Your task to perform on an android device: Open network settings Image 0: 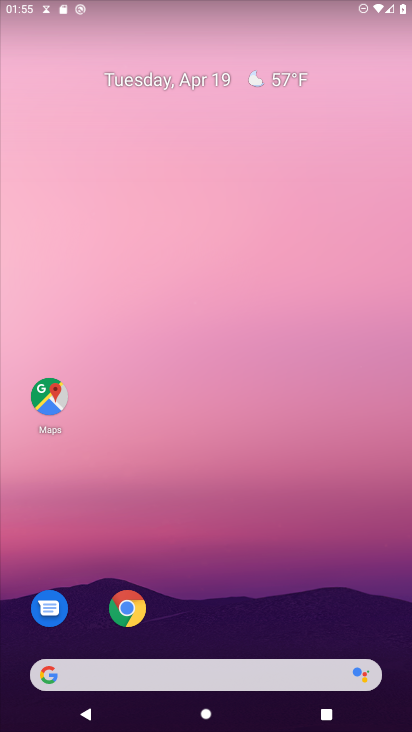
Step 0: drag from (217, 595) to (186, 65)
Your task to perform on an android device: Open network settings Image 1: 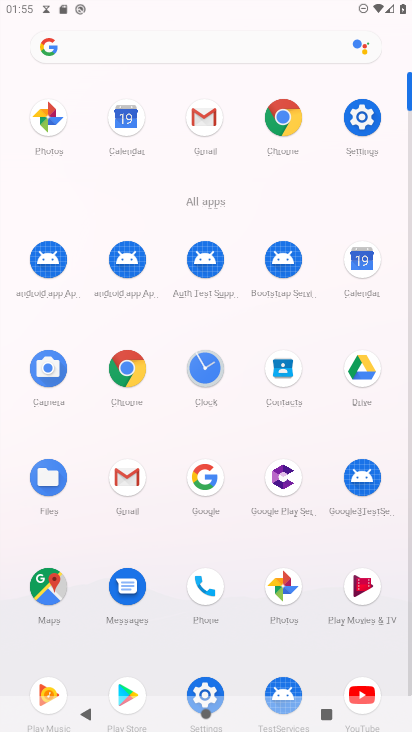
Step 1: click (360, 123)
Your task to perform on an android device: Open network settings Image 2: 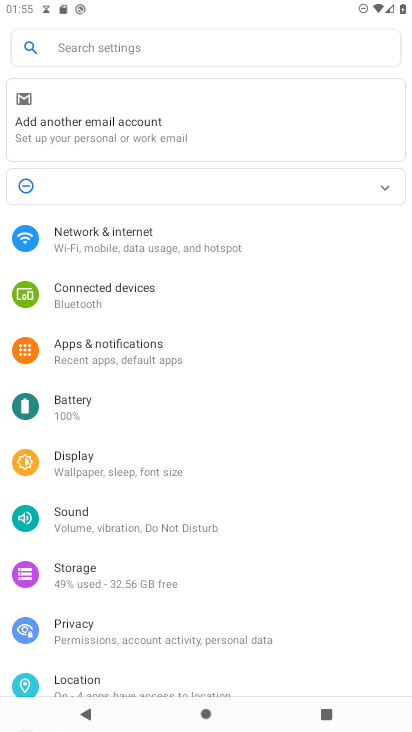
Step 2: click (118, 244)
Your task to perform on an android device: Open network settings Image 3: 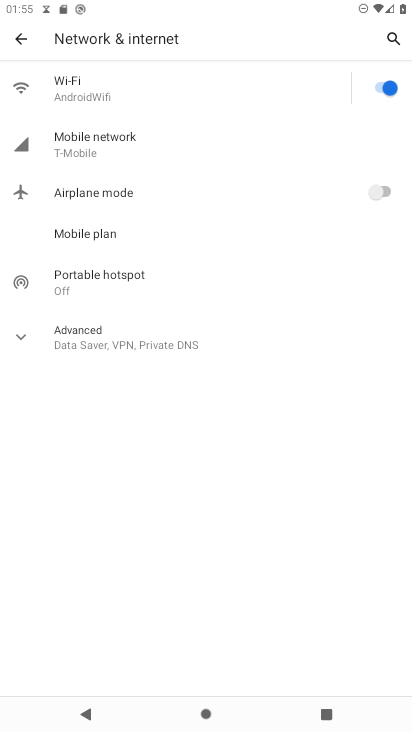
Step 3: click (78, 136)
Your task to perform on an android device: Open network settings Image 4: 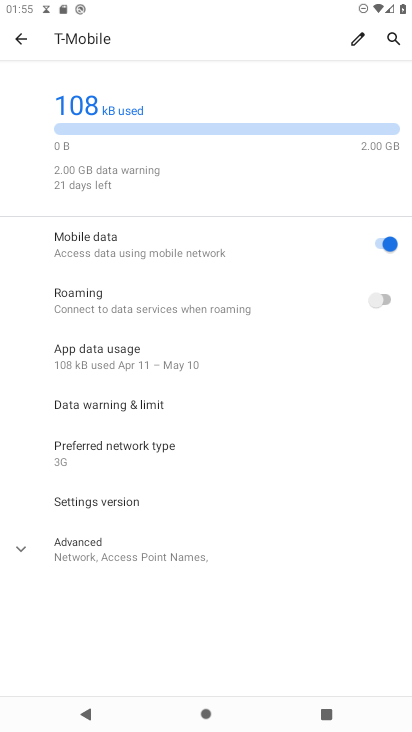
Step 4: click (101, 553)
Your task to perform on an android device: Open network settings Image 5: 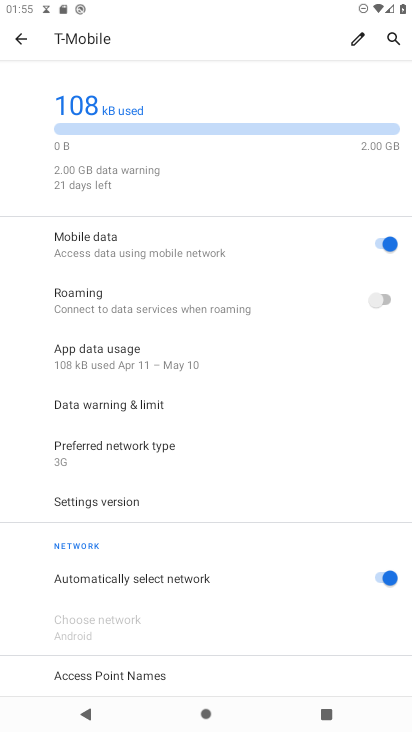
Step 5: task complete